Your task to perform on an android device: Open the calendar app, open the side menu, and click the "Day" option Image 0: 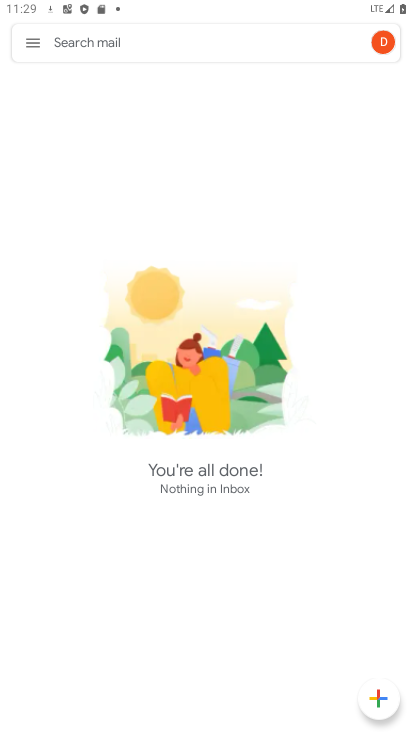
Step 0: press home button
Your task to perform on an android device: Open the calendar app, open the side menu, and click the "Day" option Image 1: 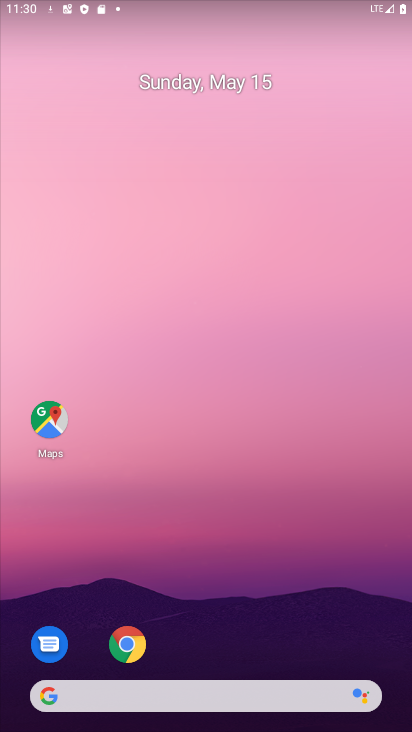
Step 1: drag from (249, 714) to (152, 164)
Your task to perform on an android device: Open the calendar app, open the side menu, and click the "Day" option Image 2: 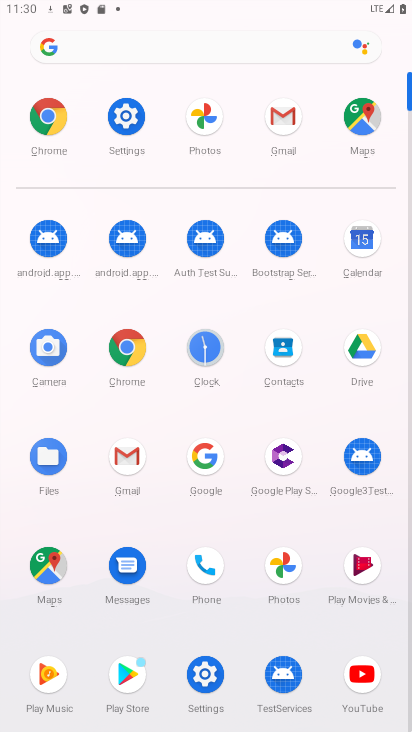
Step 2: click (361, 232)
Your task to perform on an android device: Open the calendar app, open the side menu, and click the "Day" option Image 3: 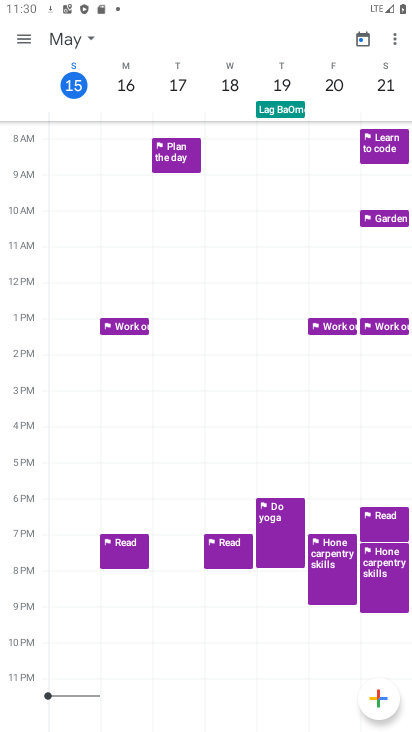
Step 3: click (26, 55)
Your task to perform on an android device: Open the calendar app, open the side menu, and click the "Day" option Image 4: 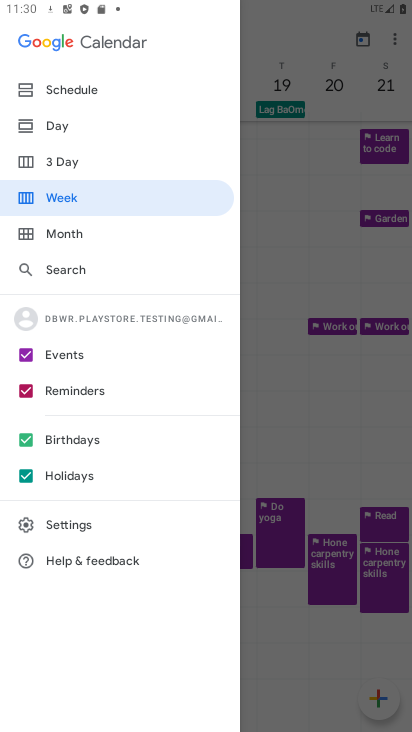
Step 4: click (58, 136)
Your task to perform on an android device: Open the calendar app, open the side menu, and click the "Day" option Image 5: 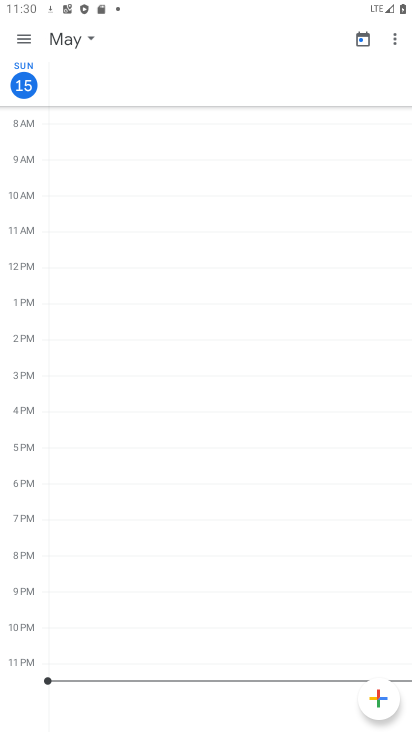
Step 5: task complete